Your task to perform on an android device: install app "NewsBreak: Local News & Alerts" Image 0: 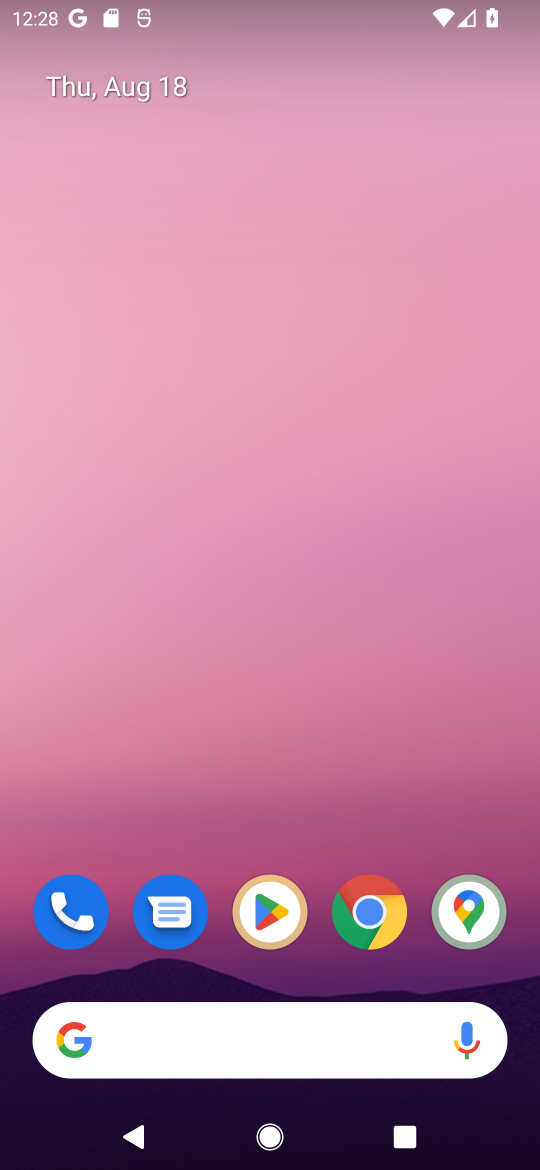
Step 0: click (269, 906)
Your task to perform on an android device: install app "NewsBreak: Local News & Alerts" Image 1: 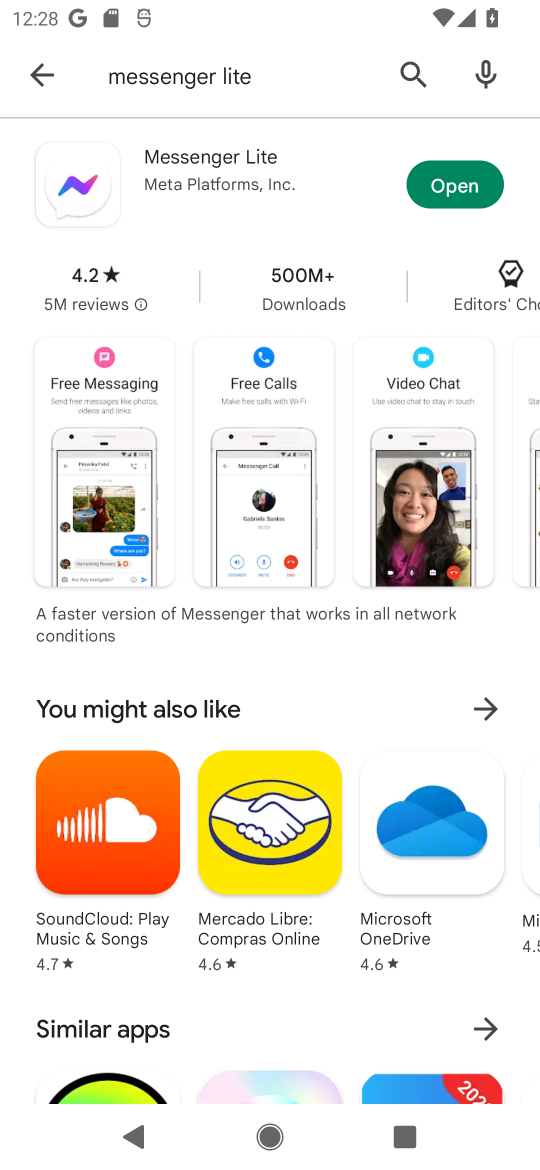
Step 1: click (420, 68)
Your task to perform on an android device: install app "NewsBreak: Local News & Alerts" Image 2: 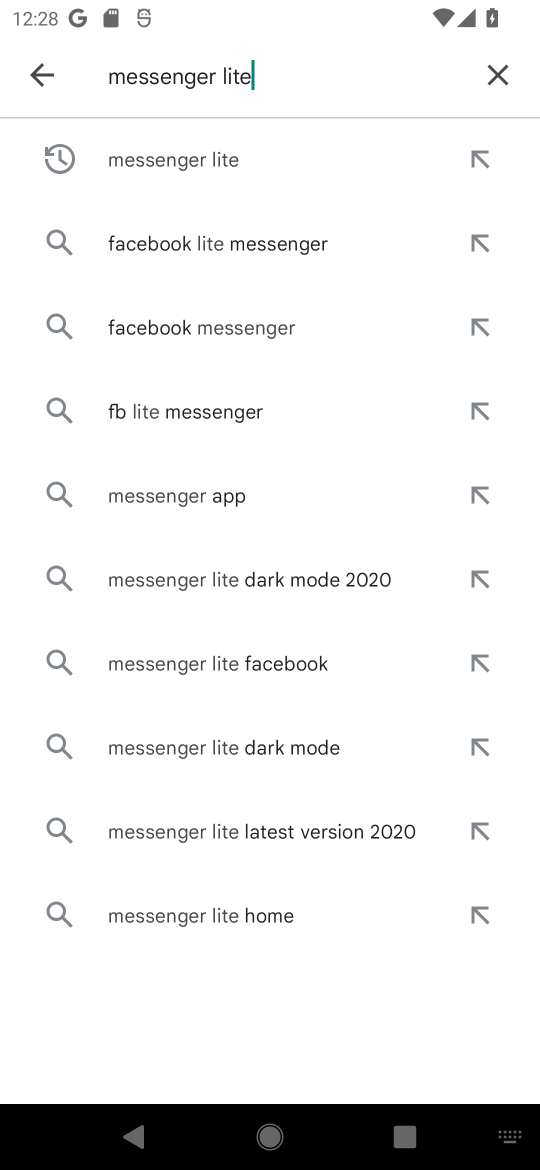
Step 2: click (496, 68)
Your task to perform on an android device: install app "NewsBreak: Local News & Alerts" Image 3: 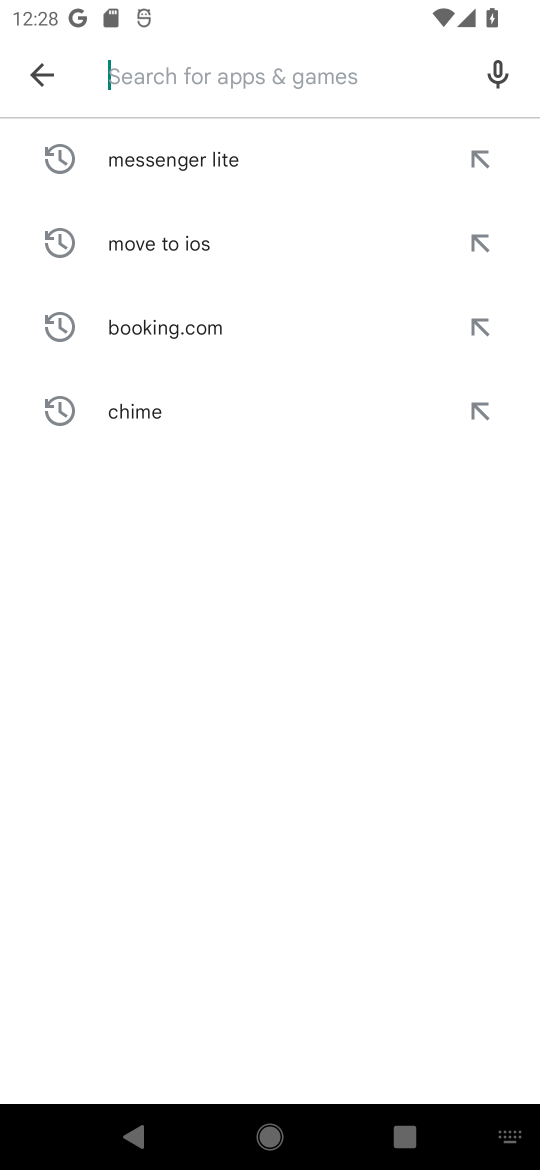
Step 3: click (166, 75)
Your task to perform on an android device: install app "NewsBreak: Local News & Alerts" Image 4: 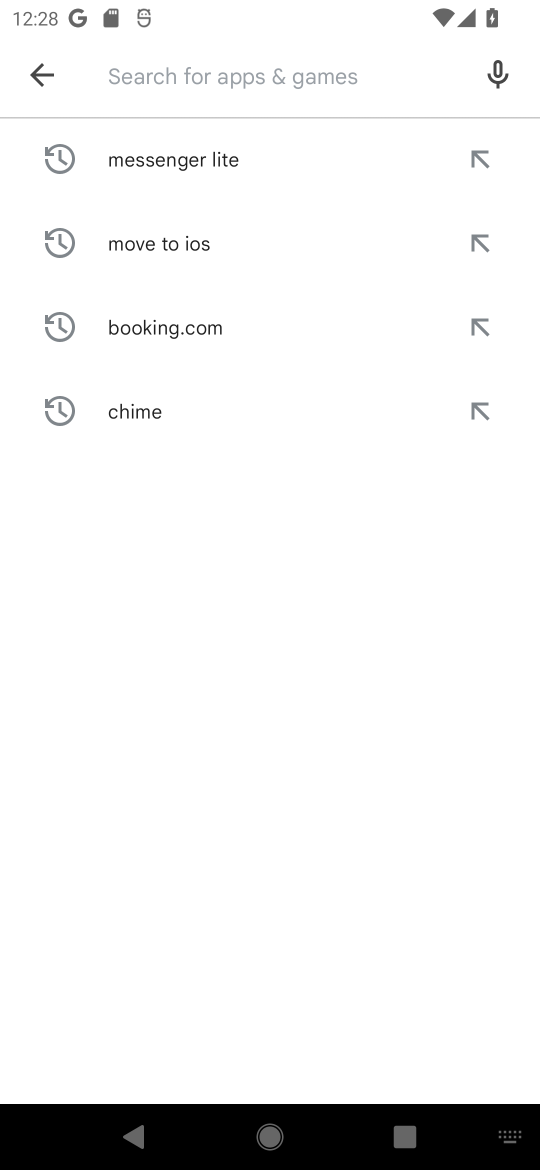
Step 4: type "NewsBreak"
Your task to perform on an android device: install app "NewsBreak: Local News & Alerts" Image 5: 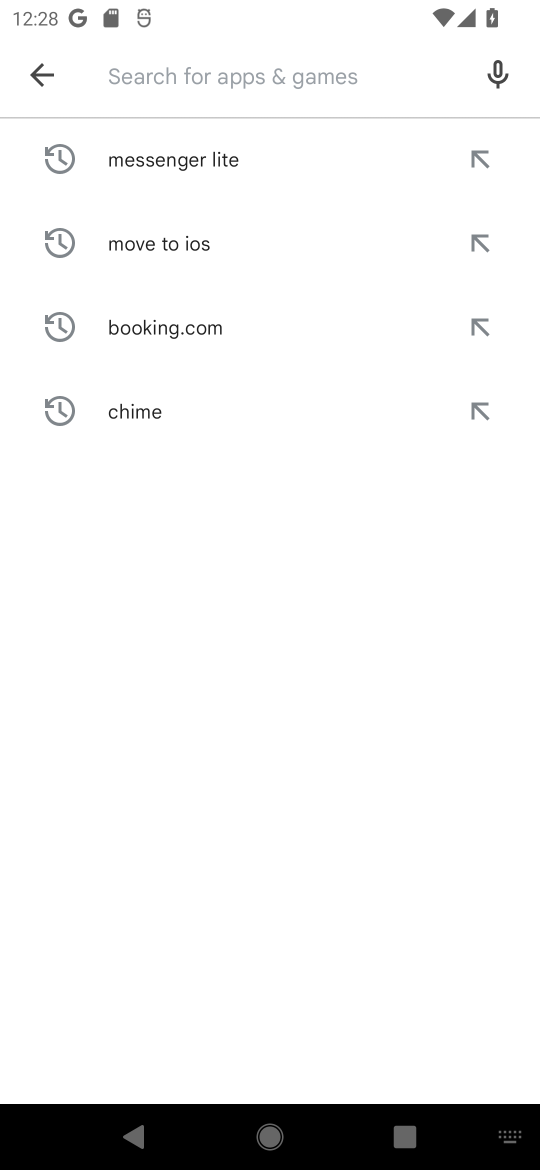
Step 5: click (396, 704)
Your task to perform on an android device: install app "NewsBreak: Local News & Alerts" Image 6: 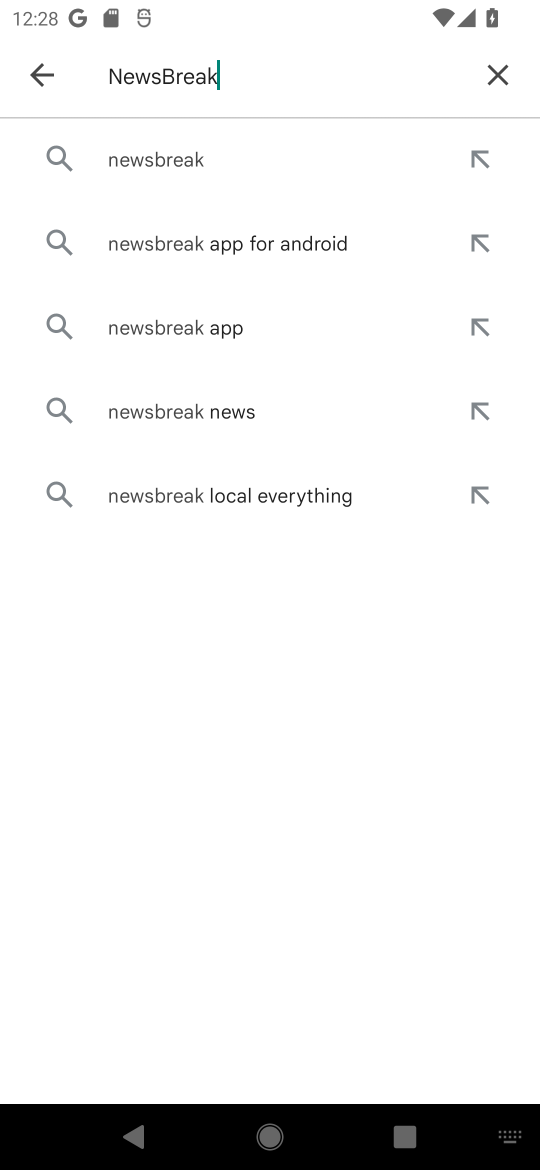
Step 6: click (148, 160)
Your task to perform on an android device: install app "NewsBreak: Local News & Alerts" Image 7: 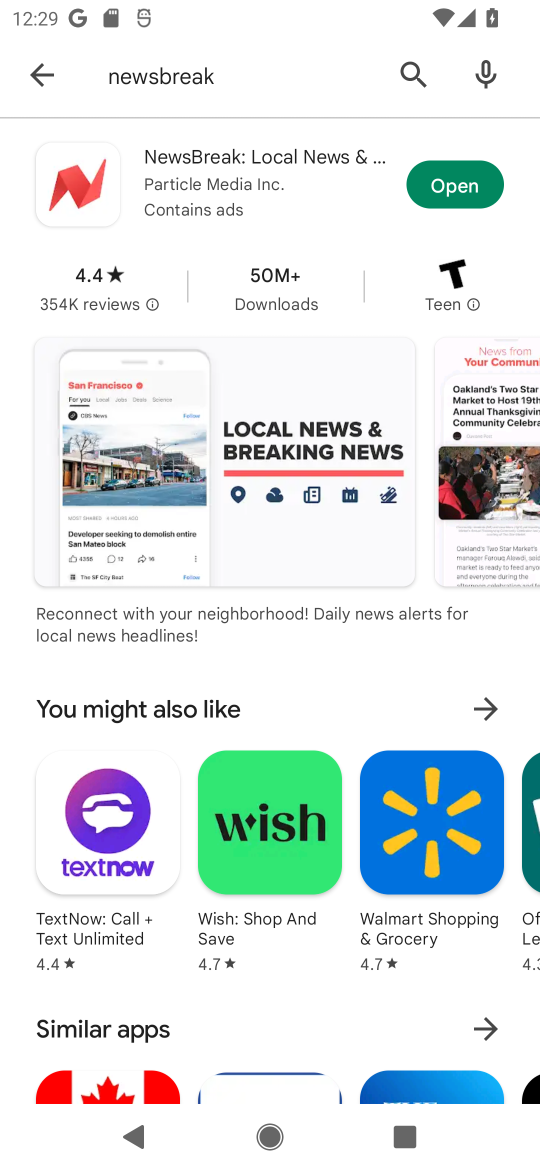
Step 7: task complete